Your task to perform on an android device: Open Chrome and go to settings Image 0: 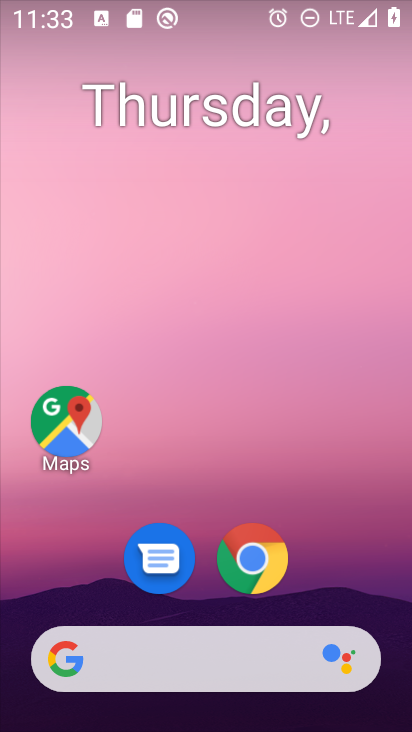
Step 0: click (251, 557)
Your task to perform on an android device: Open Chrome and go to settings Image 1: 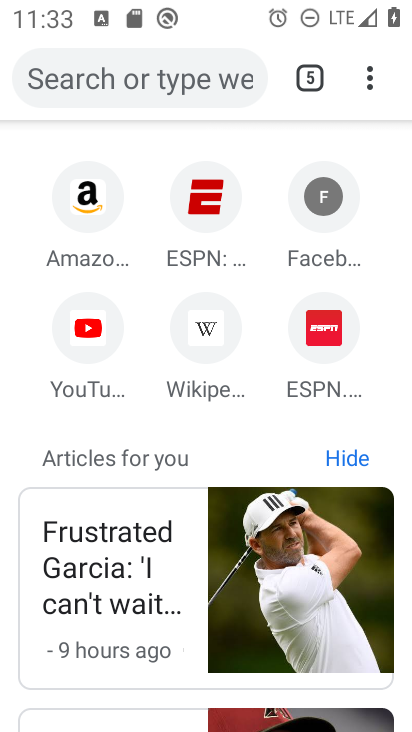
Step 1: click (368, 83)
Your task to perform on an android device: Open Chrome and go to settings Image 2: 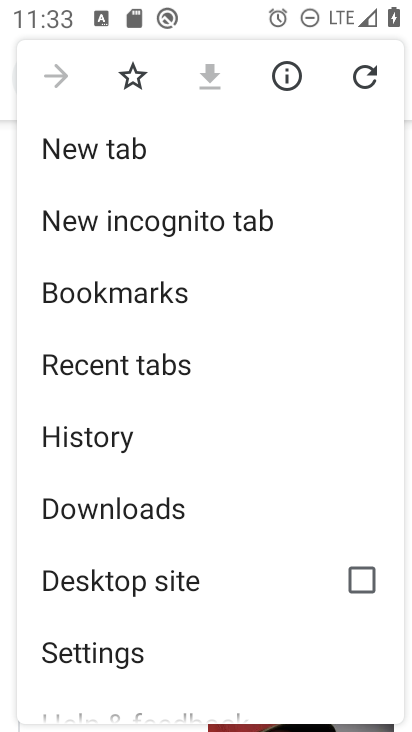
Step 2: click (101, 655)
Your task to perform on an android device: Open Chrome and go to settings Image 3: 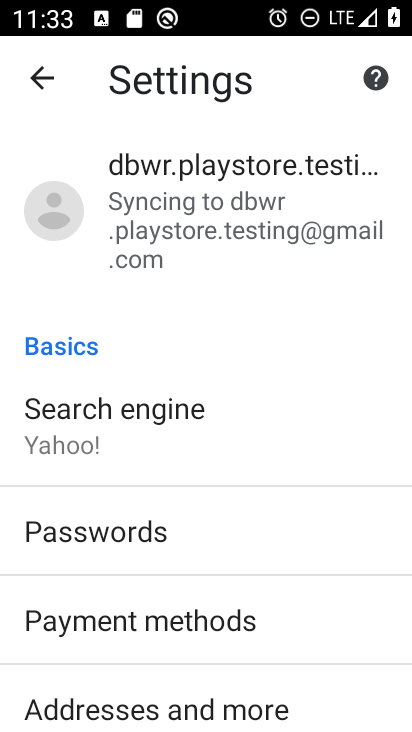
Step 3: task complete